Your task to perform on an android device: Open Maps and search for coffee Image 0: 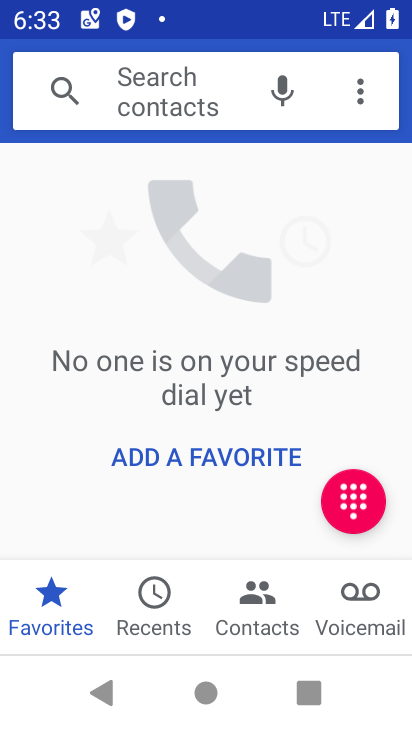
Step 0: press home button
Your task to perform on an android device: Open Maps and search for coffee Image 1: 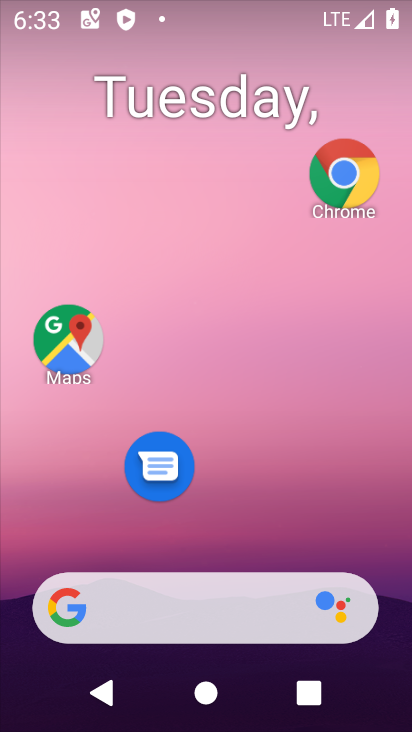
Step 1: drag from (311, 528) to (221, 690)
Your task to perform on an android device: Open Maps and search for coffee Image 2: 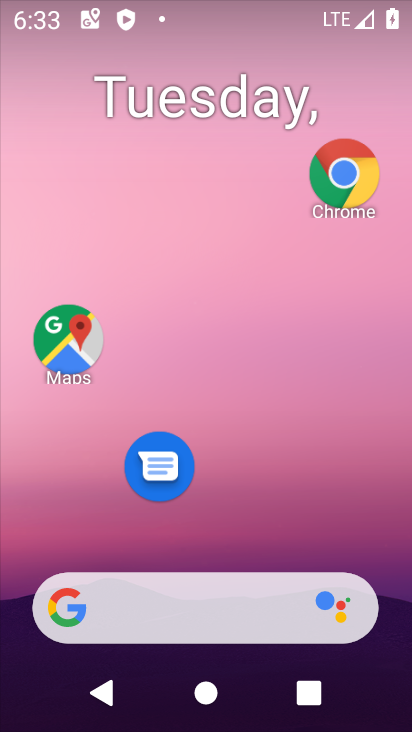
Step 2: click (81, 325)
Your task to perform on an android device: Open Maps and search for coffee Image 3: 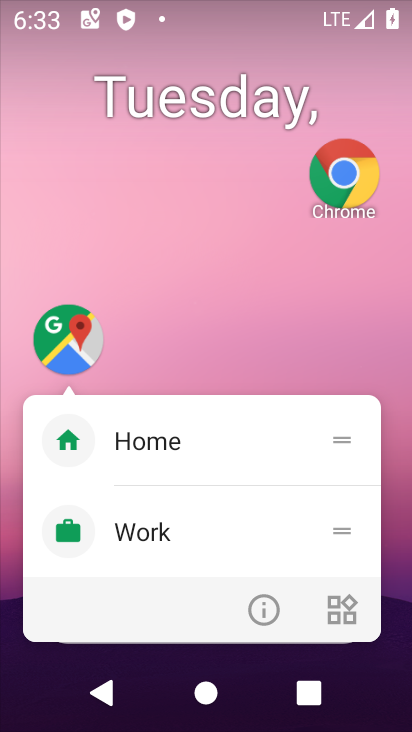
Step 3: click (81, 325)
Your task to perform on an android device: Open Maps and search for coffee Image 4: 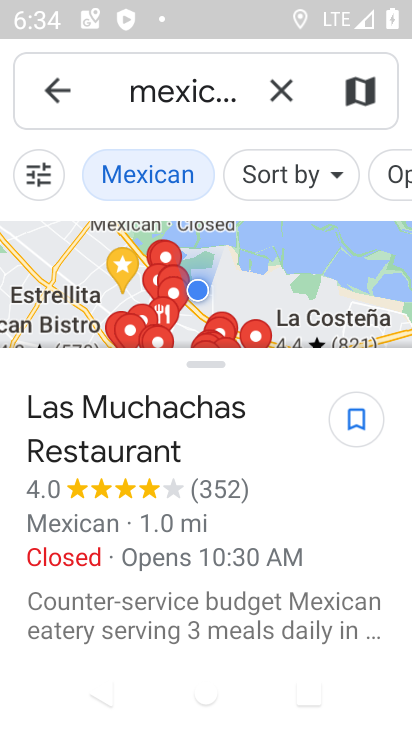
Step 4: click (41, 73)
Your task to perform on an android device: Open Maps and search for coffee Image 5: 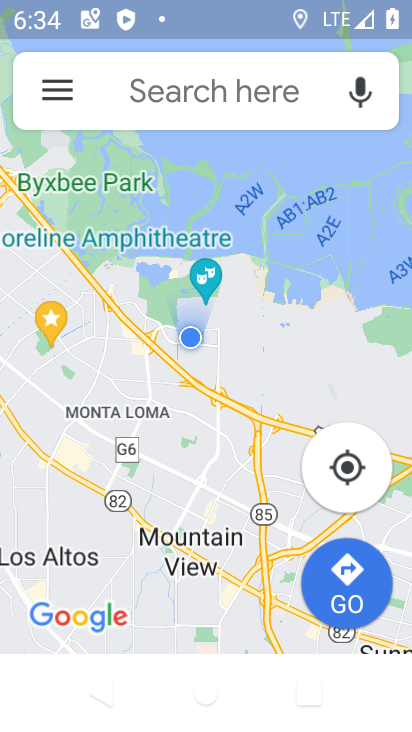
Step 5: click (132, 78)
Your task to perform on an android device: Open Maps and search for coffee Image 6: 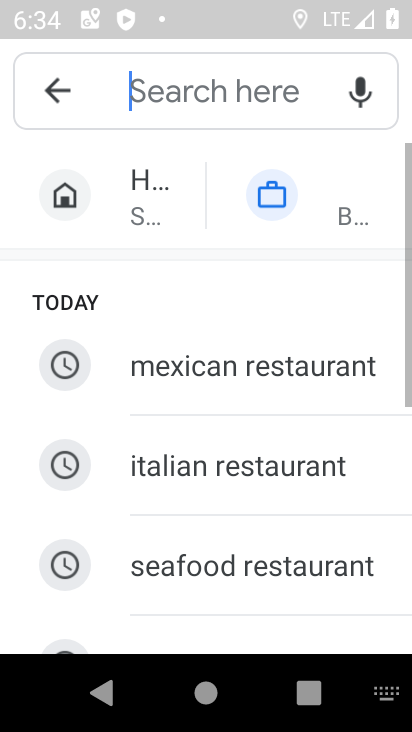
Step 6: click (143, 87)
Your task to perform on an android device: Open Maps and search for coffee Image 7: 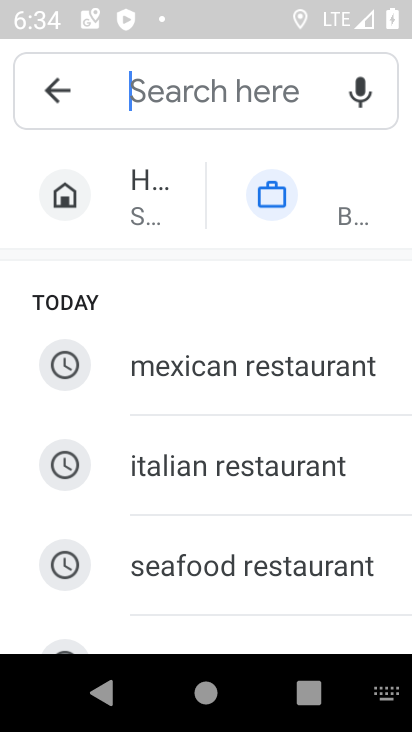
Step 7: type "Mexican restaurants"
Your task to perform on an android device: Open Maps and search for coffee Image 8: 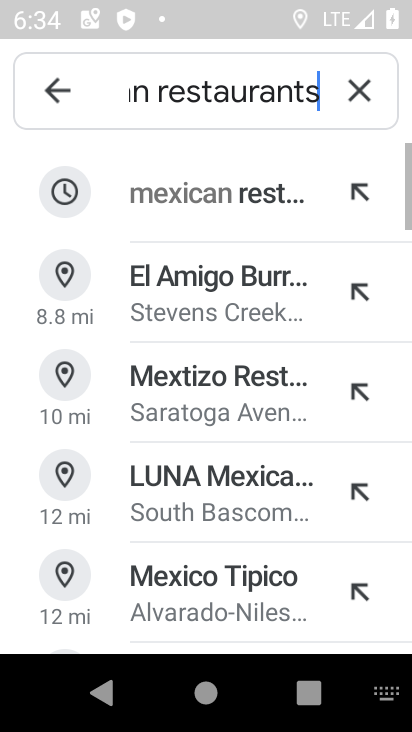
Step 8: click (175, 191)
Your task to perform on an android device: Open Maps and search for coffee Image 9: 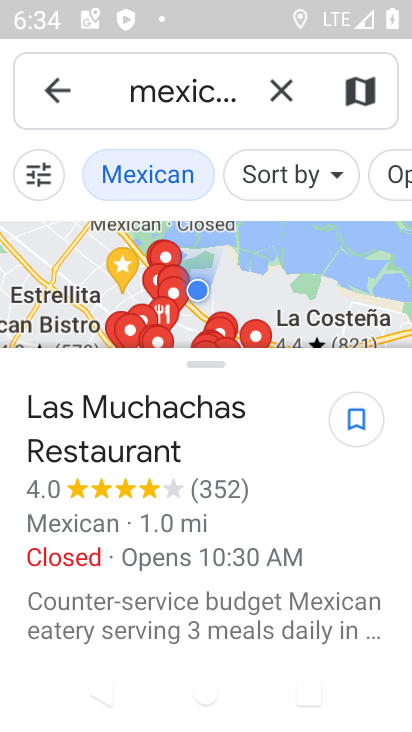
Step 9: task complete